Your task to perform on an android device: open a bookmark in the chrome app Image 0: 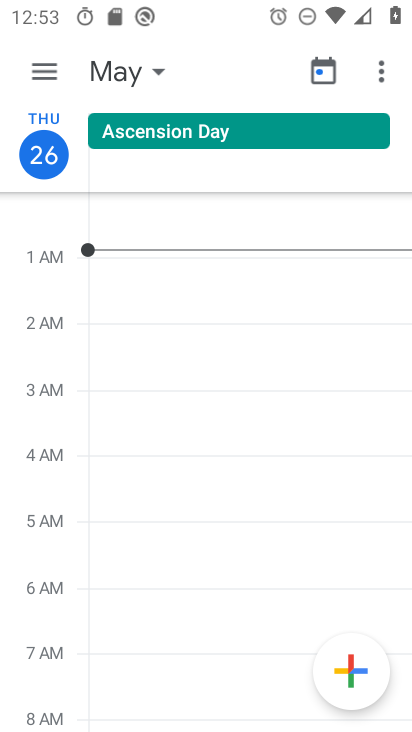
Step 0: press home button
Your task to perform on an android device: open a bookmark in the chrome app Image 1: 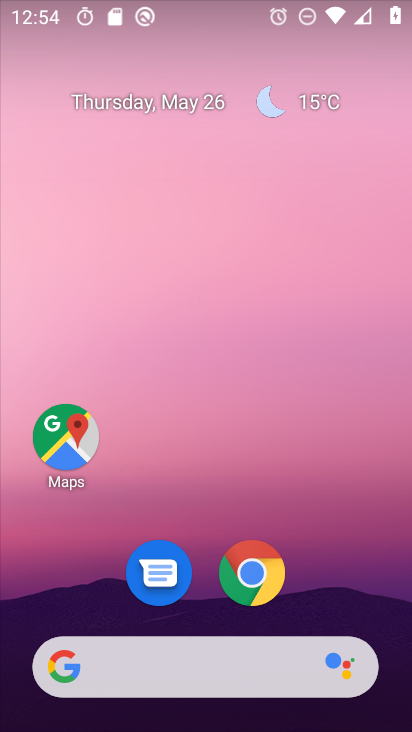
Step 1: click (253, 576)
Your task to perform on an android device: open a bookmark in the chrome app Image 2: 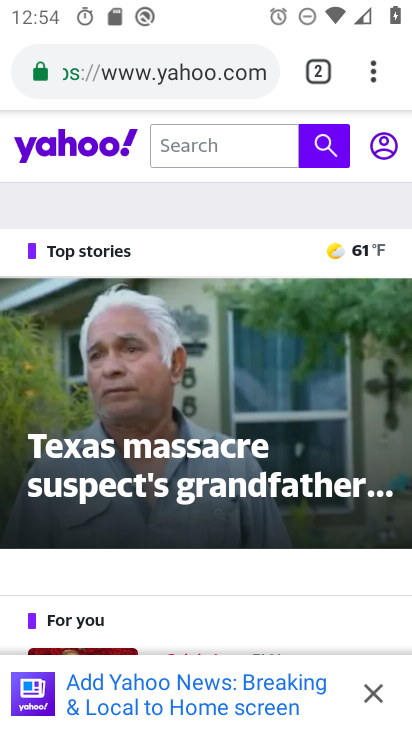
Step 2: click (372, 71)
Your task to perform on an android device: open a bookmark in the chrome app Image 3: 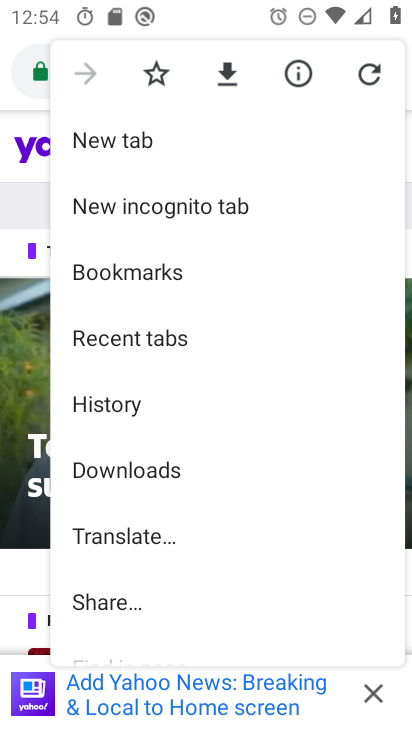
Step 3: click (129, 274)
Your task to perform on an android device: open a bookmark in the chrome app Image 4: 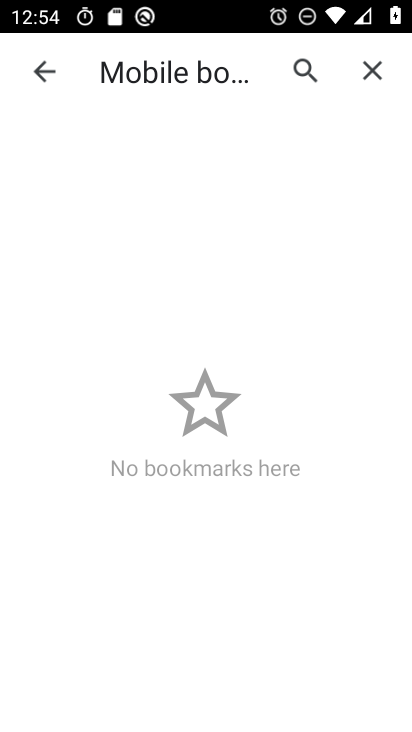
Step 4: task complete